Your task to perform on an android device: Show the shopping cart on amazon.com. Add rayovac triple a to the cart on amazon.com Image 0: 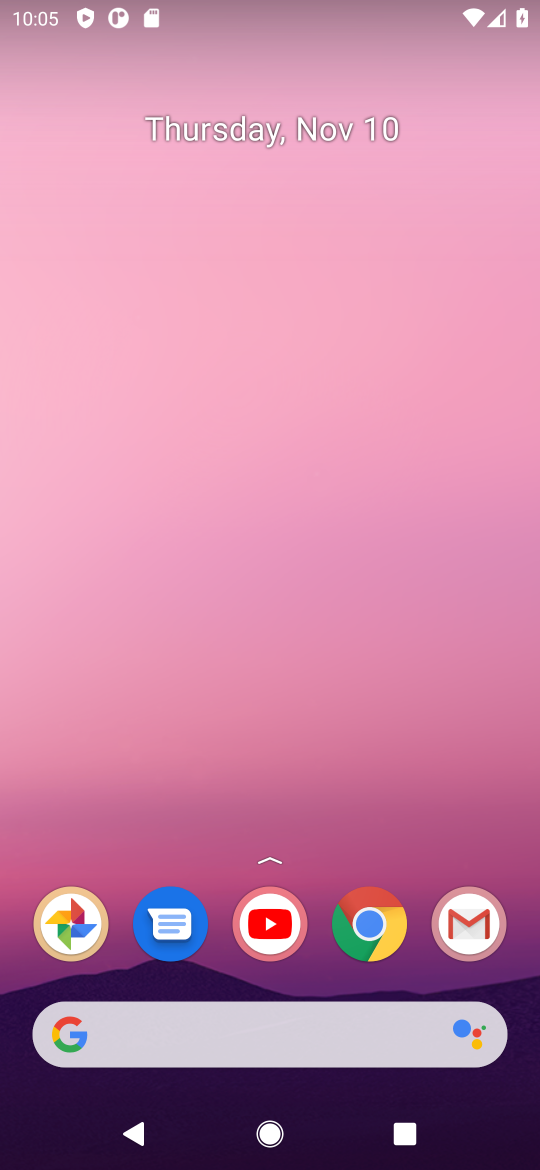
Step 0: click (378, 921)
Your task to perform on an android device: Show the shopping cart on amazon.com. Add rayovac triple a to the cart on amazon.com Image 1: 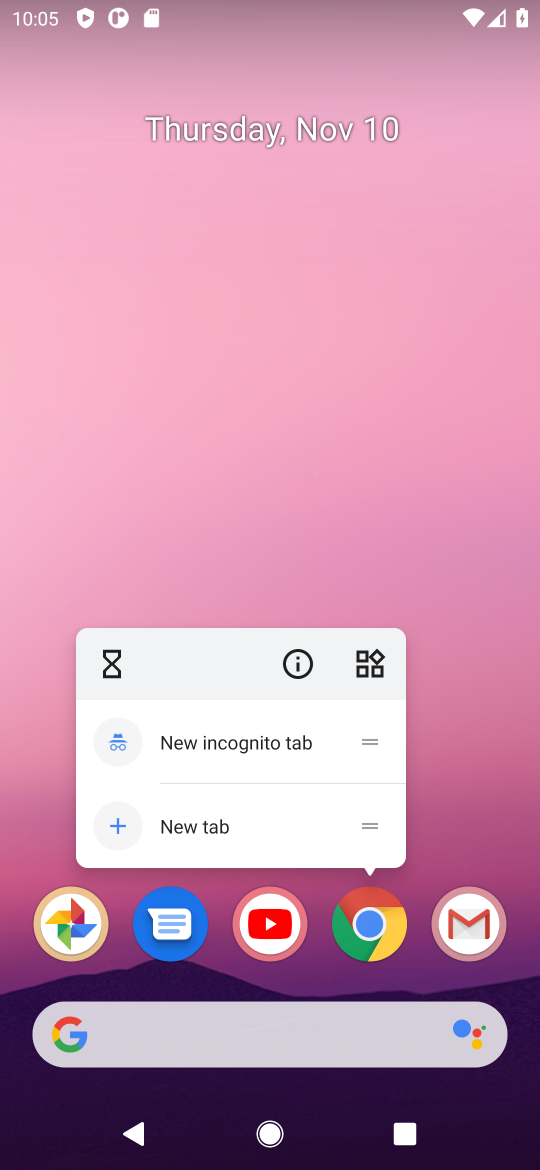
Step 1: click (378, 921)
Your task to perform on an android device: Show the shopping cart on amazon.com. Add rayovac triple a to the cart on amazon.com Image 2: 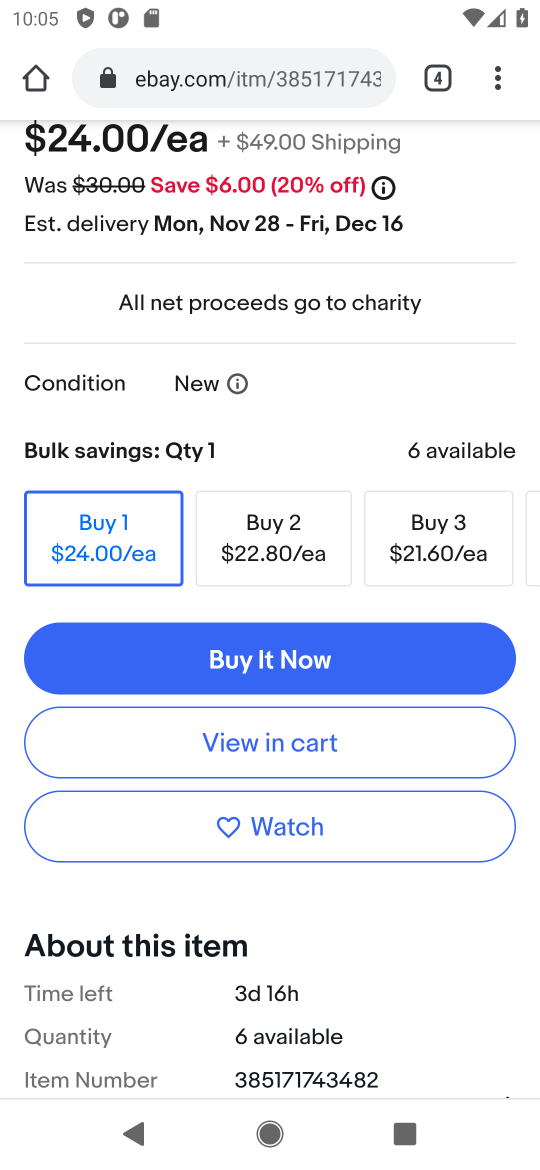
Step 2: click (273, 79)
Your task to perform on an android device: Show the shopping cart on amazon.com. Add rayovac triple a to the cart on amazon.com Image 3: 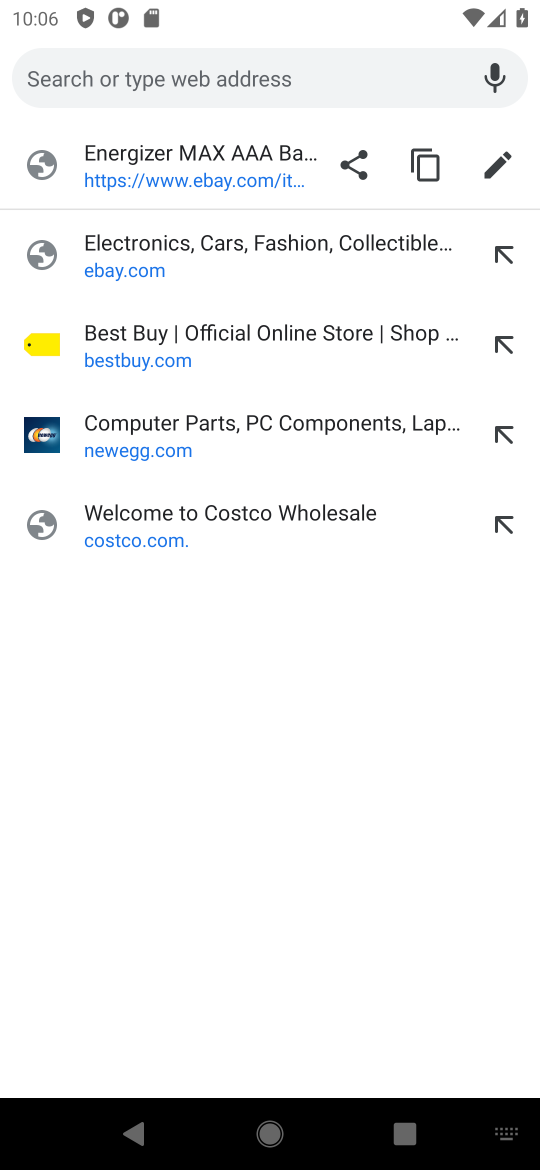
Step 3: type "amazon.com"
Your task to perform on an android device: Show the shopping cart on amazon.com. Add rayovac triple a to the cart on amazon.com Image 4: 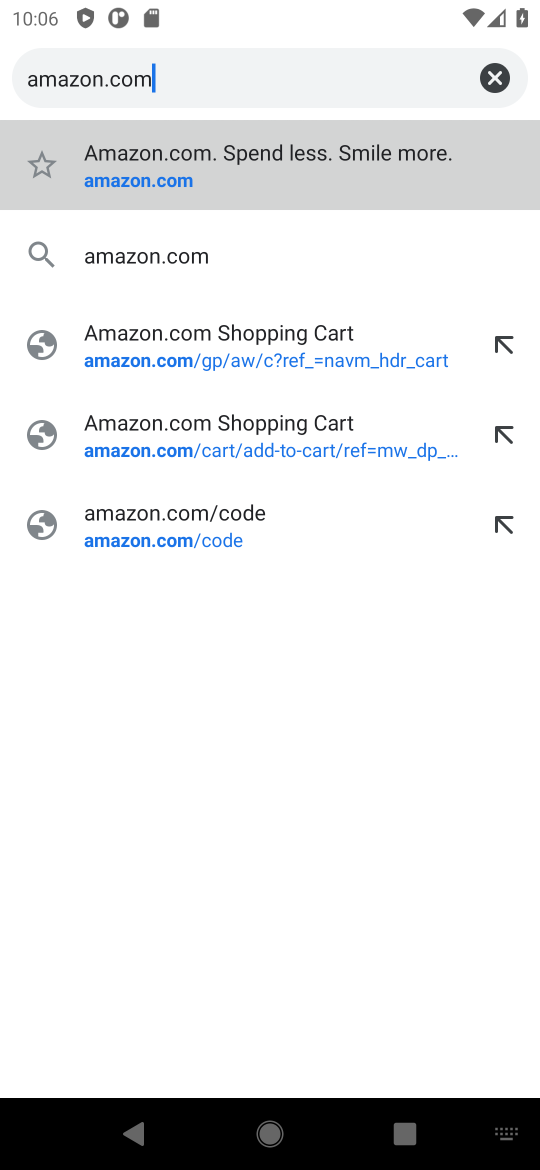
Step 4: click (128, 192)
Your task to perform on an android device: Show the shopping cart on amazon.com. Add rayovac triple a to the cart on amazon.com Image 5: 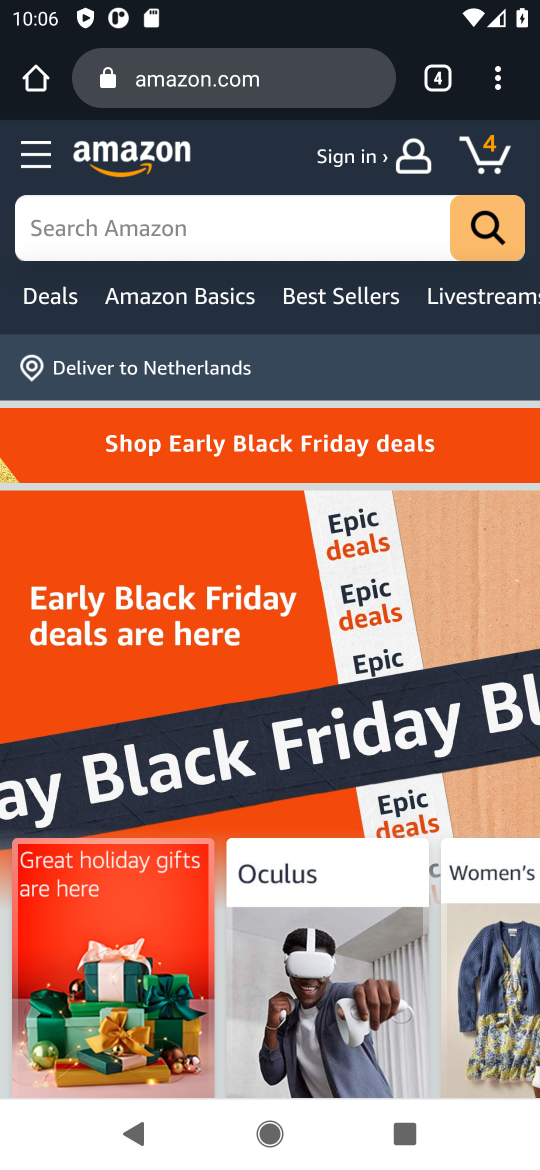
Step 5: click (481, 163)
Your task to perform on an android device: Show the shopping cart on amazon.com. Add rayovac triple a to the cart on amazon.com Image 6: 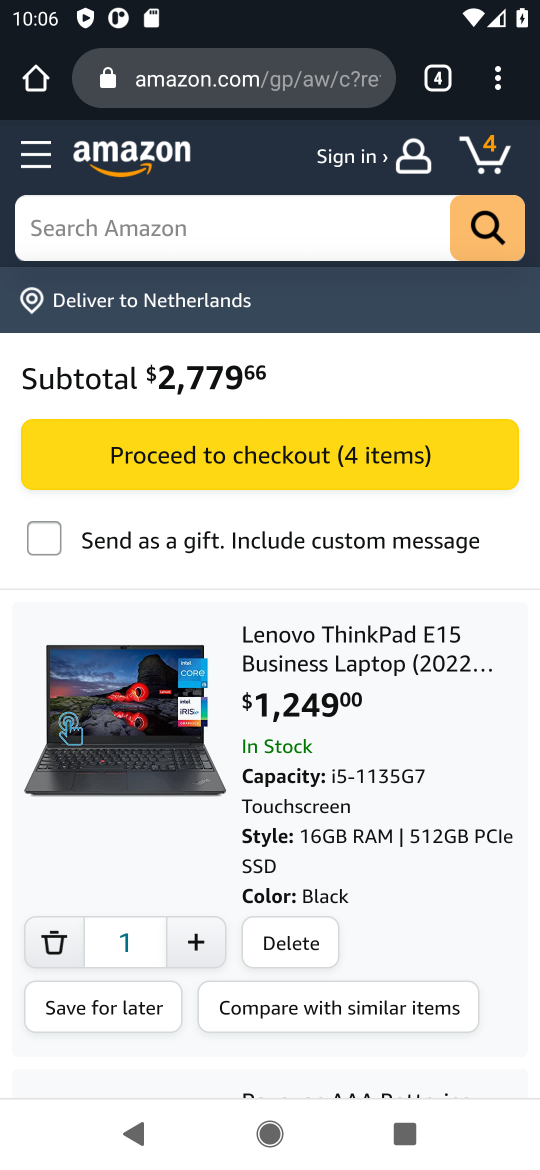
Step 6: click (253, 218)
Your task to perform on an android device: Show the shopping cart on amazon.com. Add rayovac triple a to the cart on amazon.com Image 7: 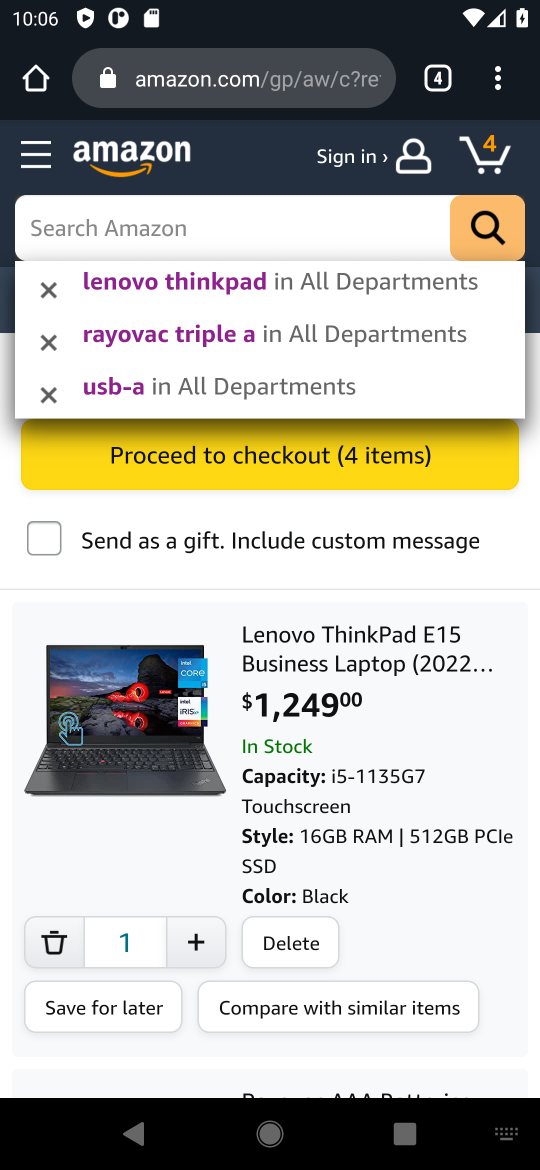
Step 7: type "rayovac triple a"
Your task to perform on an android device: Show the shopping cart on amazon.com. Add rayovac triple a to the cart on amazon.com Image 8: 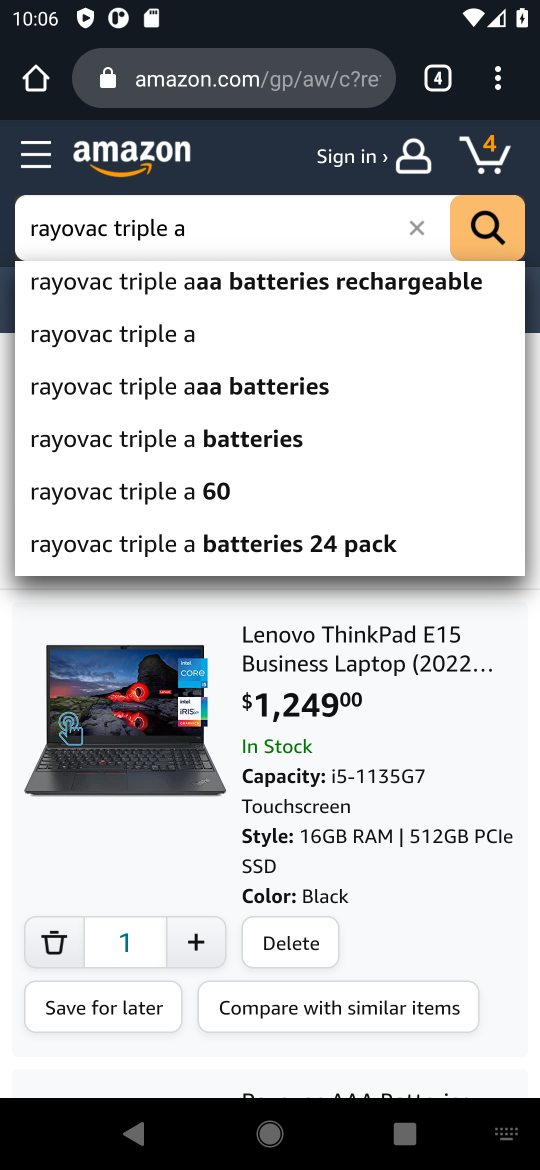
Step 8: click (156, 349)
Your task to perform on an android device: Show the shopping cart on amazon.com. Add rayovac triple a to the cart on amazon.com Image 9: 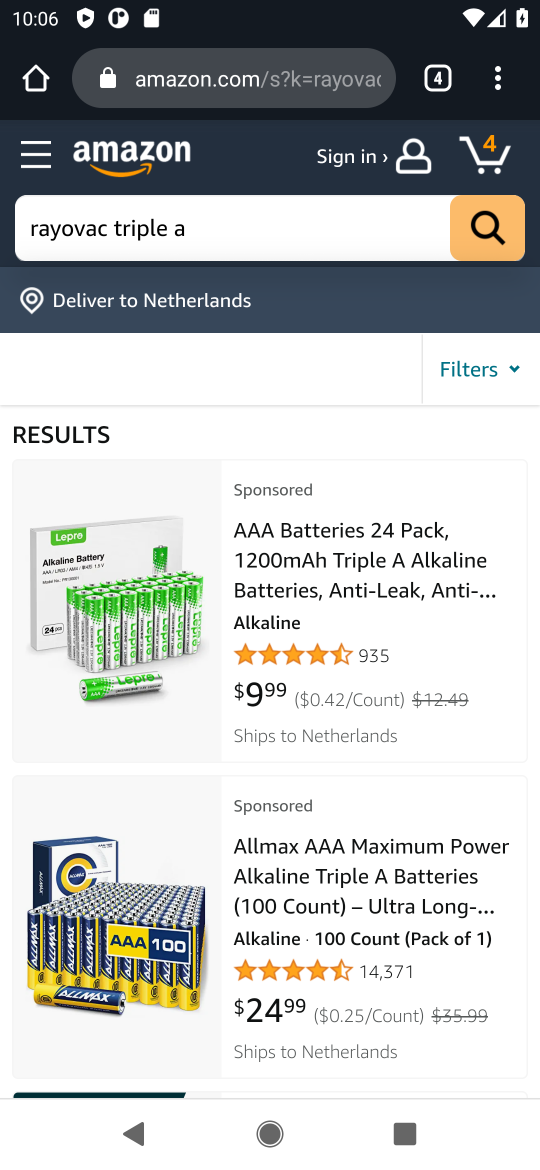
Step 9: drag from (212, 849) to (201, 580)
Your task to perform on an android device: Show the shopping cart on amazon.com. Add rayovac triple a to the cart on amazon.com Image 10: 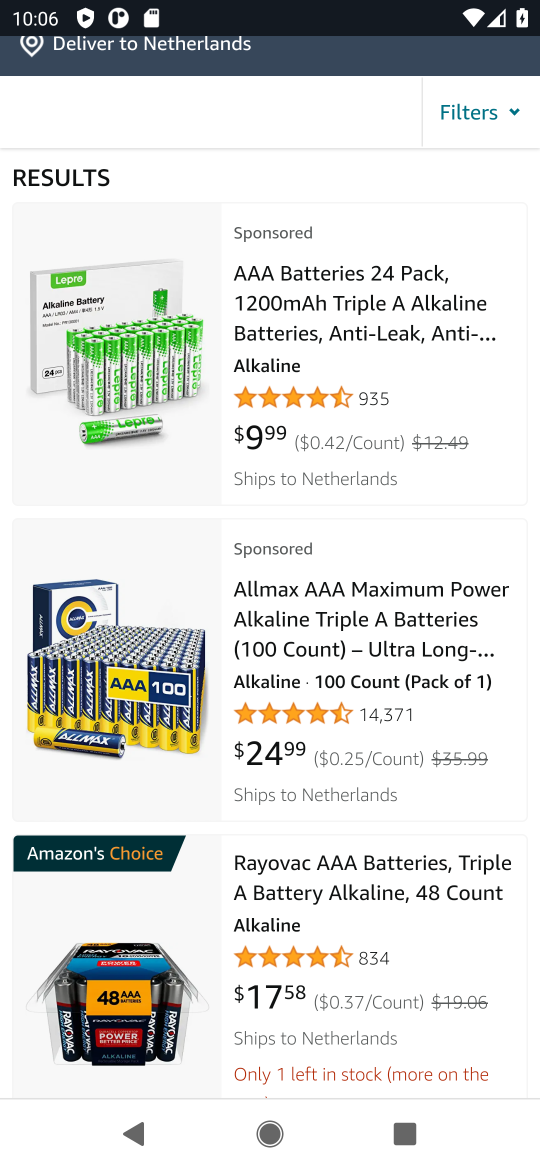
Step 10: click (138, 1009)
Your task to perform on an android device: Show the shopping cart on amazon.com. Add rayovac triple a to the cart on amazon.com Image 11: 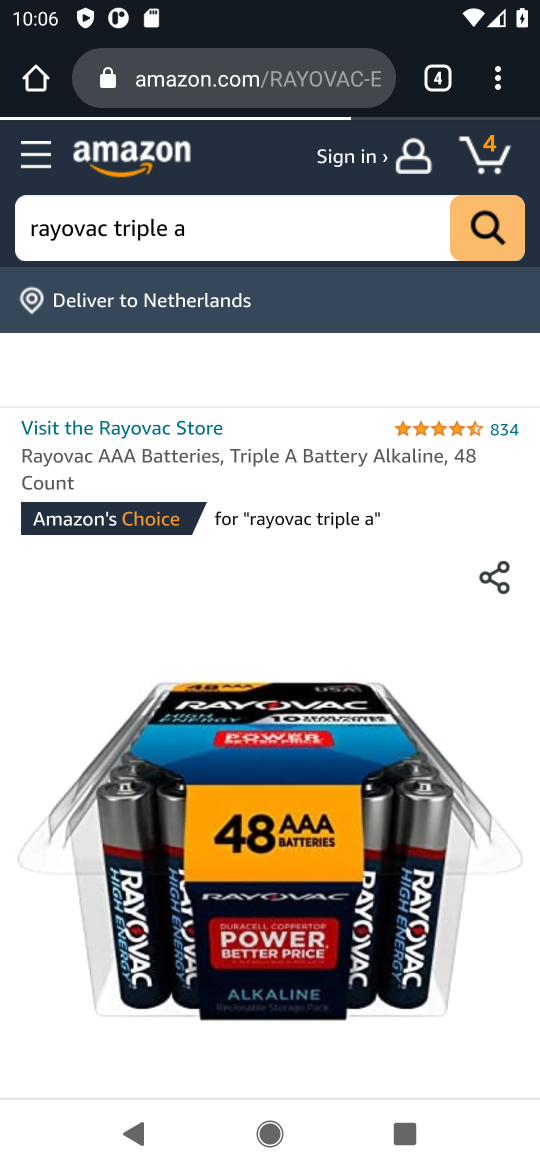
Step 11: drag from (281, 936) to (335, 422)
Your task to perform on an android device: Show the shopping cart on amazon.com. Add rayovac triple a to the cart on amazon.com Image 12: 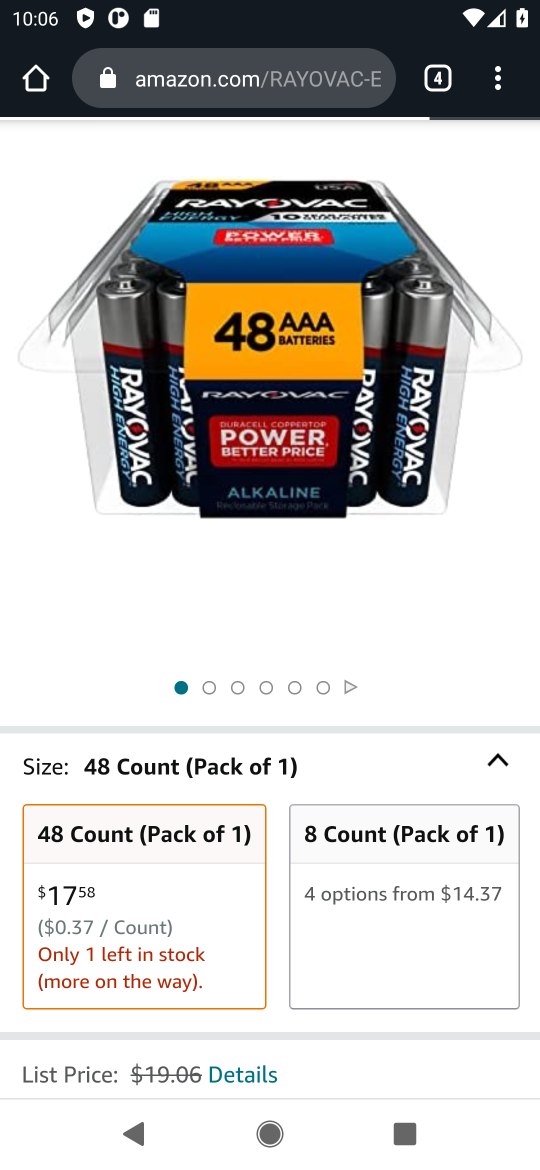
Step 12: drag from (255, 852) to (254, 394)
Your task to perform on an android device: Show the shopping cart on amazon.com. Add rayovac triple a to the cart on amazon.com Image 13: 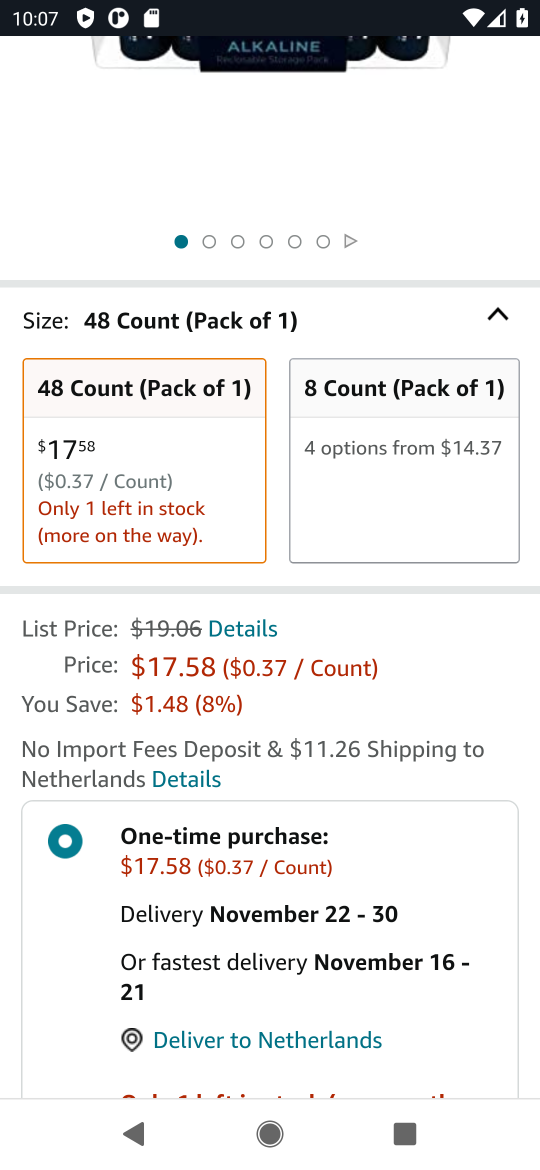
Step 13: drag from (179, 881) to (208, 470)
Your task to perform on an android device: Show the shopping cart on amazon.com. Add rayovac triple a to the cart on amazon.com Image 14: 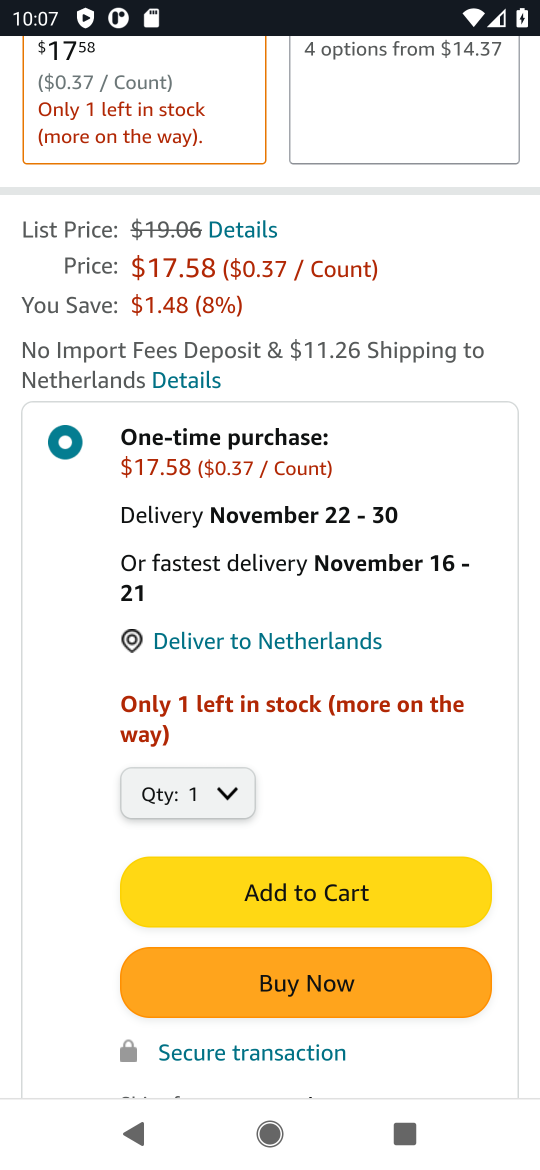
Step 14: click (210, 874)
Your task to perform on an android device: Show the shopping cart on amazon.com. Add rayovac triple a to the cart on amazon.com Image 15: 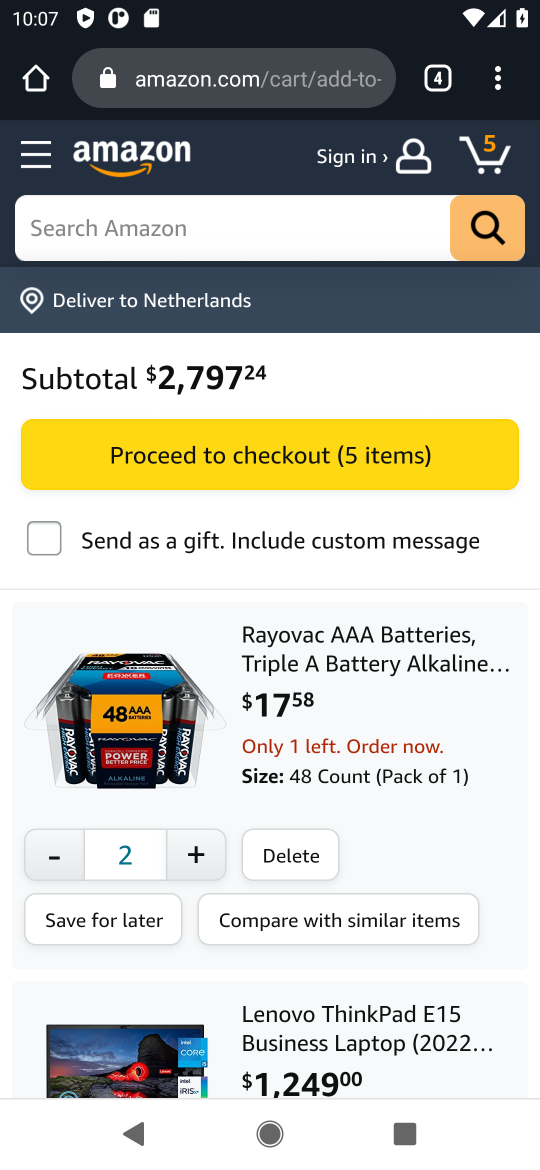
Step 15: task complete